Your task to perform on an android device: see sites visited before in the chrome app Image 0: 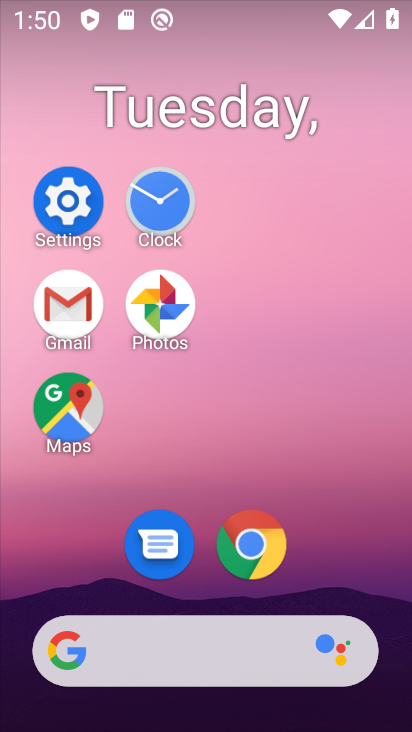
Step 0: click (263, 544)
Your task to perform on an android device: see sites visited before in the chrome app Image 1: 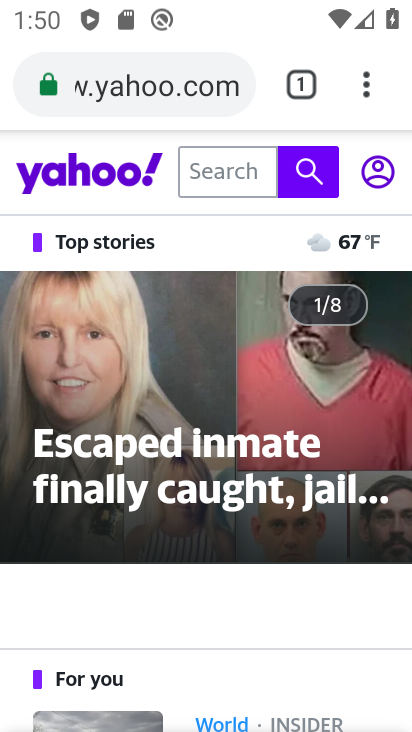
Step 1: click (365, 80)
Your task to perform on an android device: see sites visited before in the chrome app Image 2: 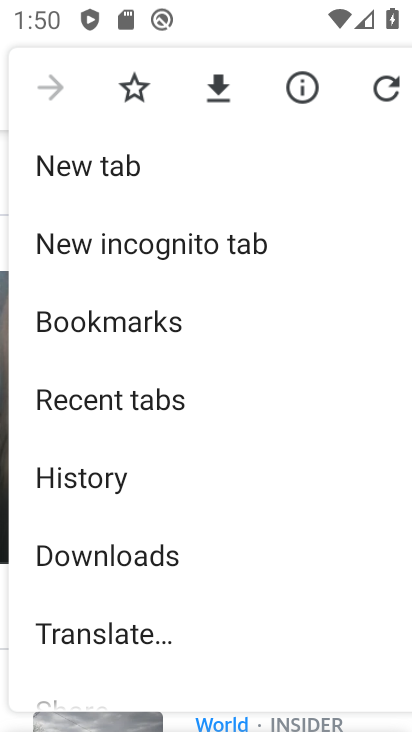
Step 2: click (164, 393)
Your task to perform on an android device: see sites visited before in the chrome app Image 3: 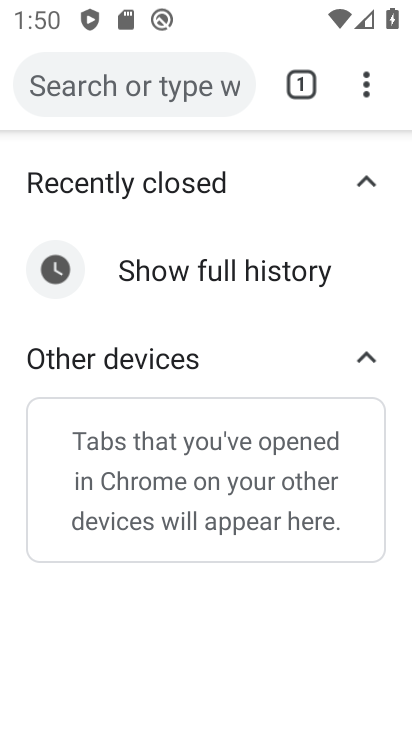
Step 3: click (289, 271)
Your task to perform on an android device: see sites visited before in the chrome app Image 4: 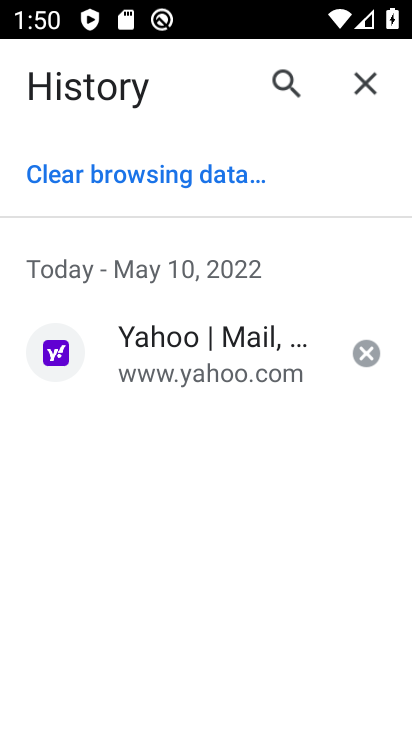
Step 4: task complete